Your task to perform on an android device: turn off sleep mode Image 0: 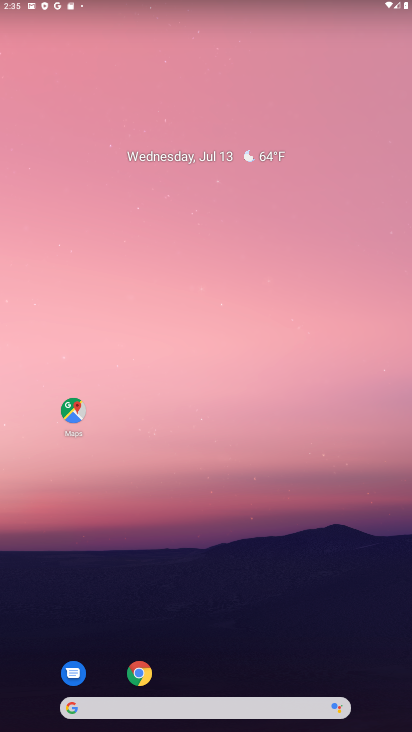
Step 0: drag from (288, 616) to (214, 73)
Your task to perform on an android device: turn off sleep mode Image 1: 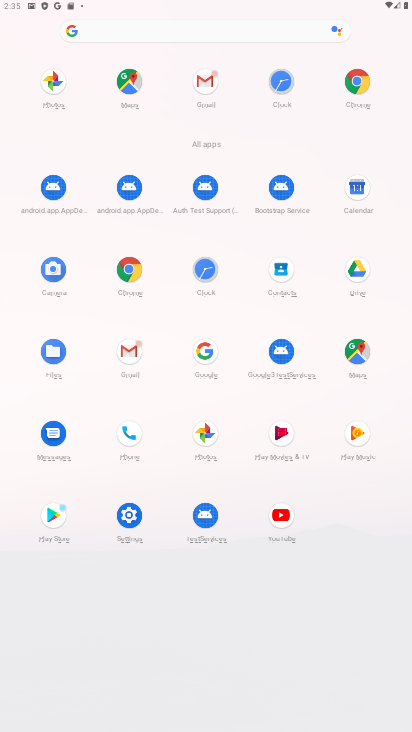
Step 1: click (116, 513)
Your task to perform on an android device: turn off sleep mode Image 2: 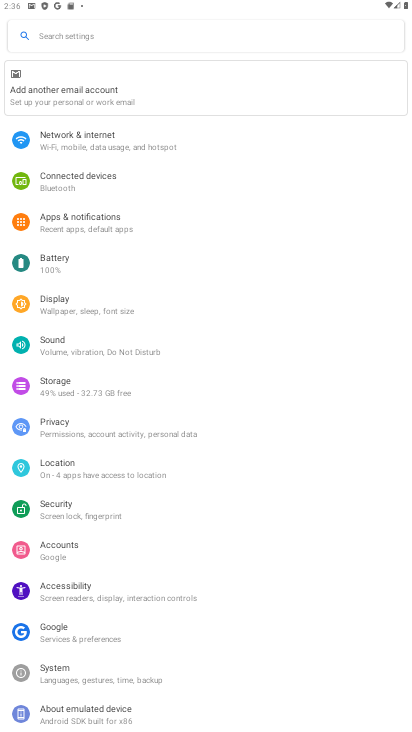
Step 2: click (73, 298)
Your task to perform on an android device: turn off sleep mode Image 3: 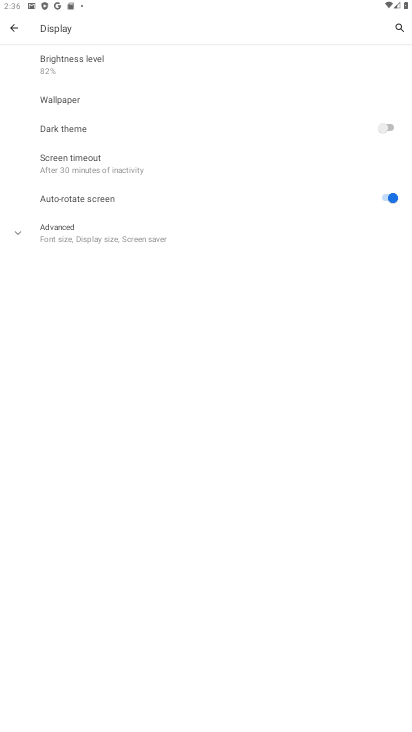
Step 3: task complete